Your task to perform on an android device: Clear all items from cart on newegg.com. Image 0: 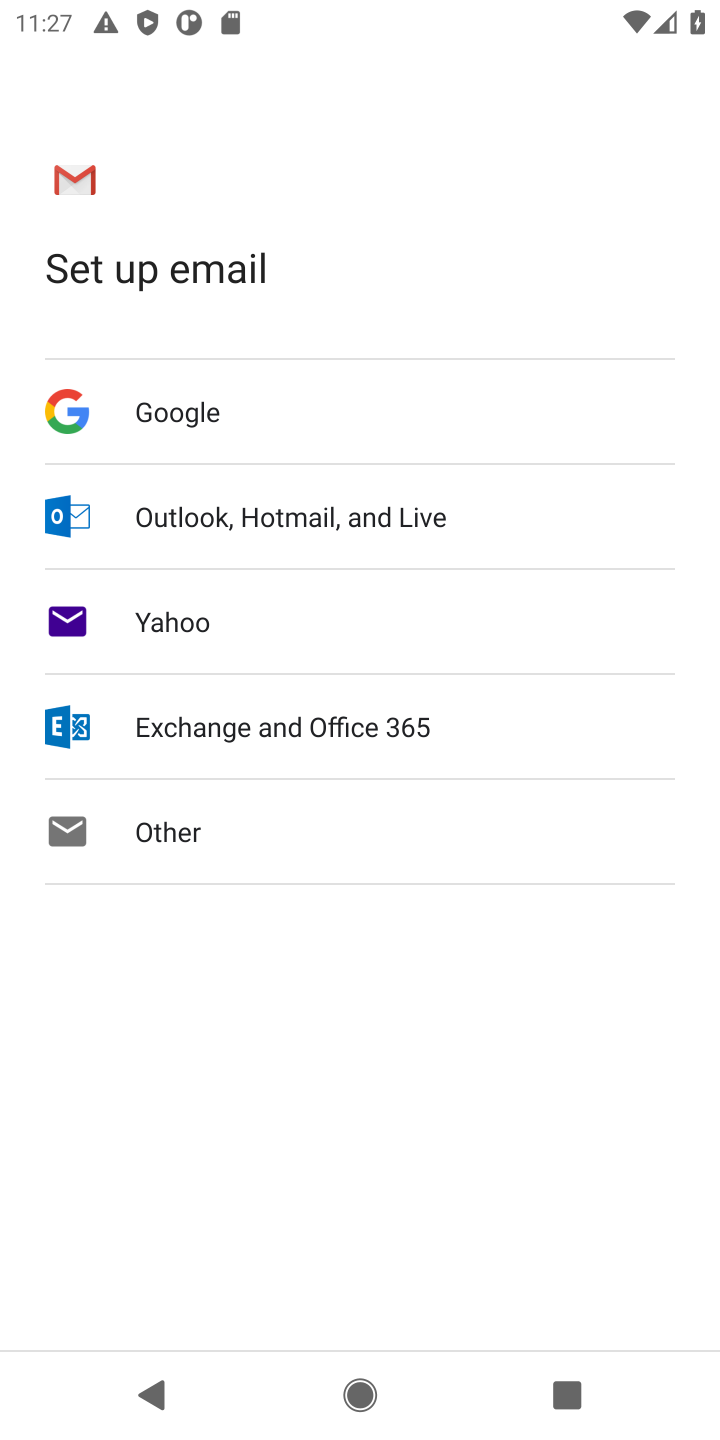
Step 0: press home button
Your task to perform on an android device: Clear all items from cart on newegg.com. Image 1: 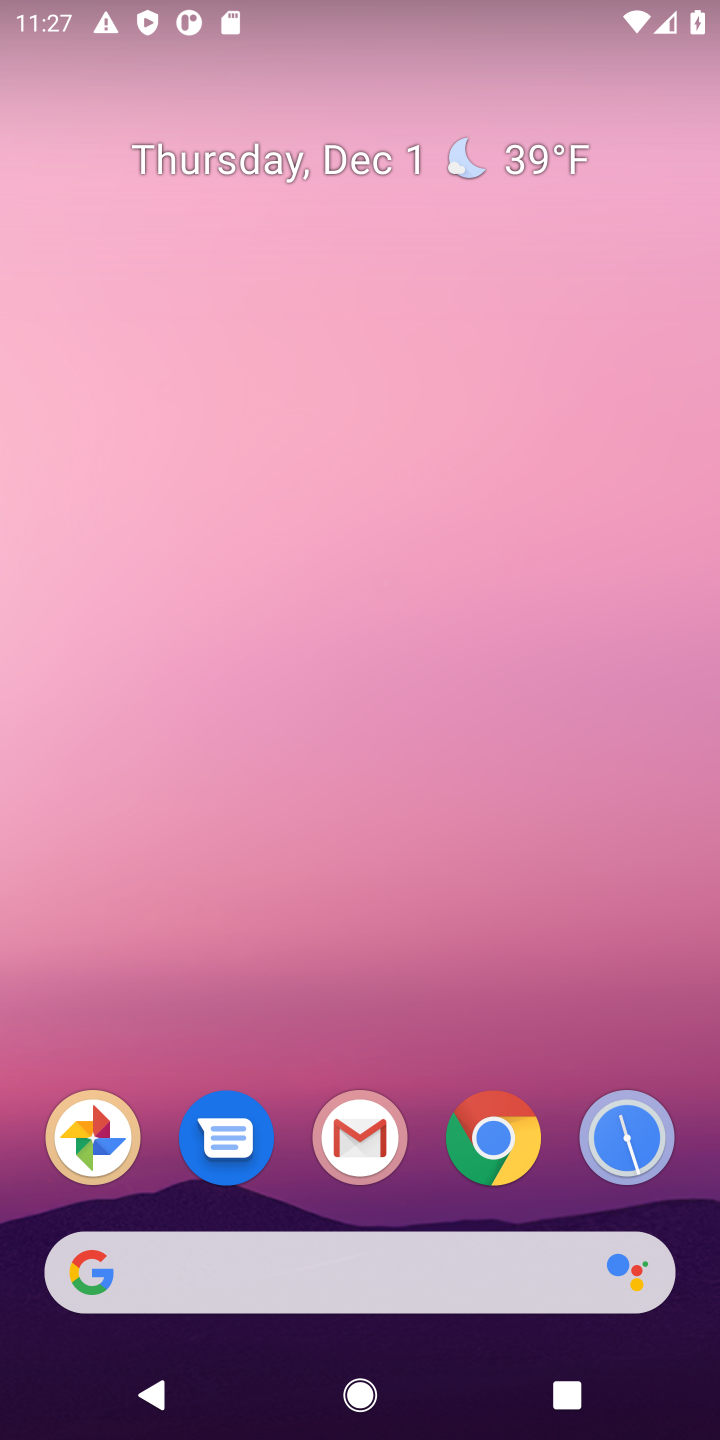
Step 1: drag from (416, 1203) to (373, 685)
Your task to perform on an android device: Clear all items from cart on newegg.com. Image 2: 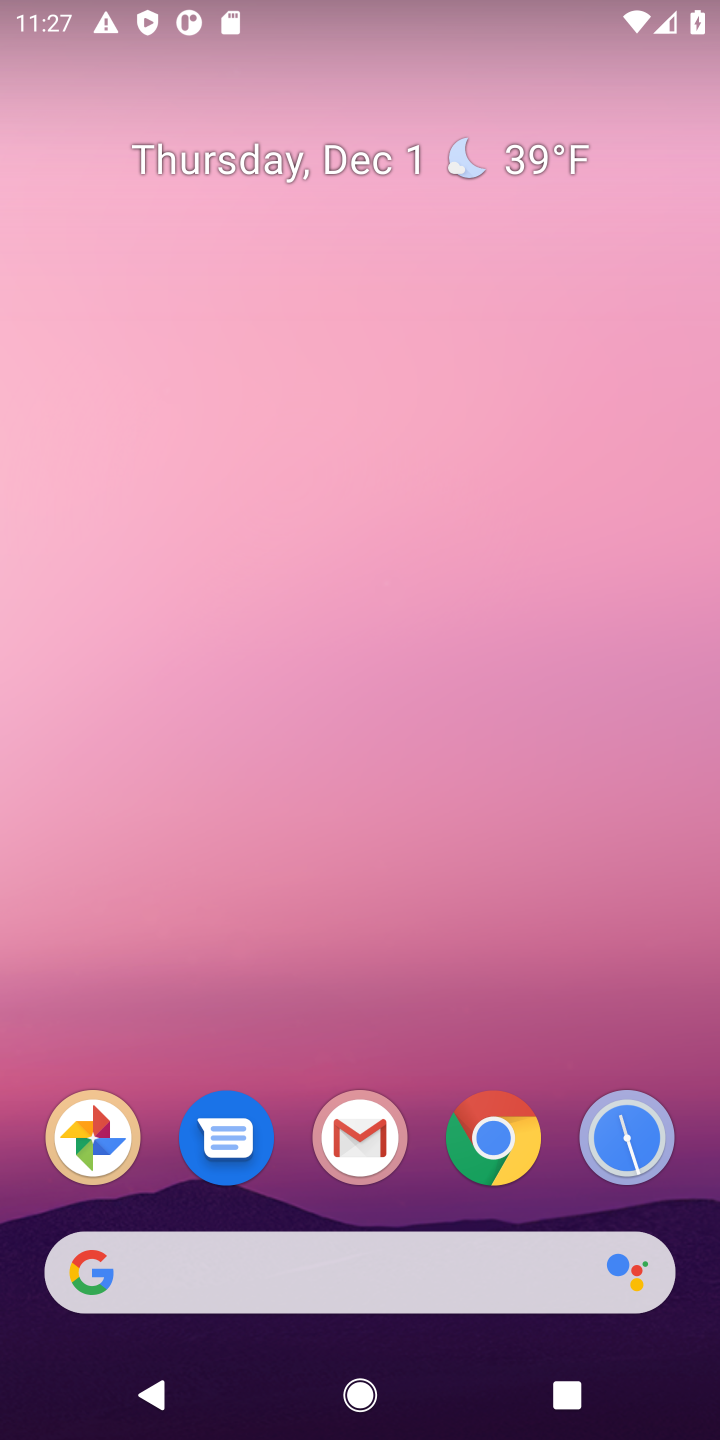
Step 2: drag from (412, 1226) to (597, 20)
Your task to perform on an android device: Clear all items from cart on newegg.com. Image 3: 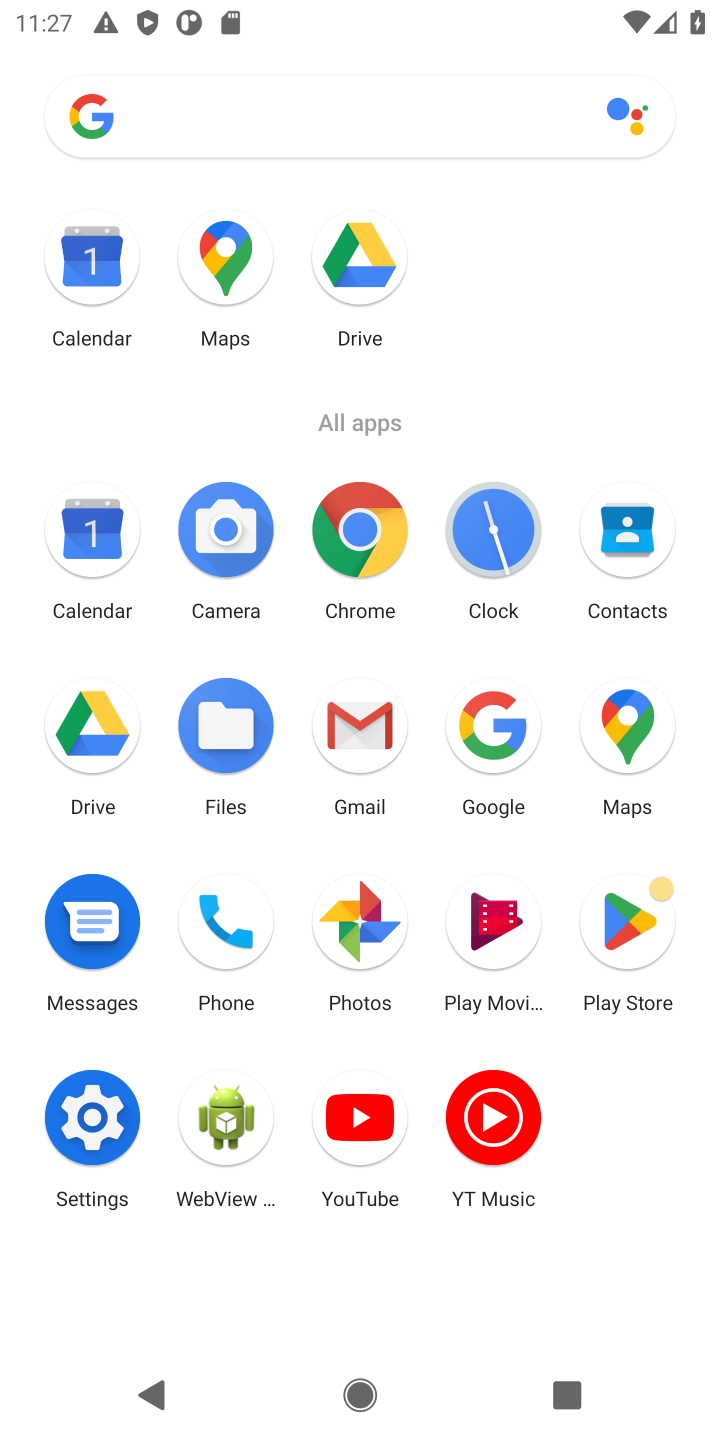
Step 3: click (511, 763)
Your task to perform on an android device: Clear all items from cart on newegg.com. Image 4: 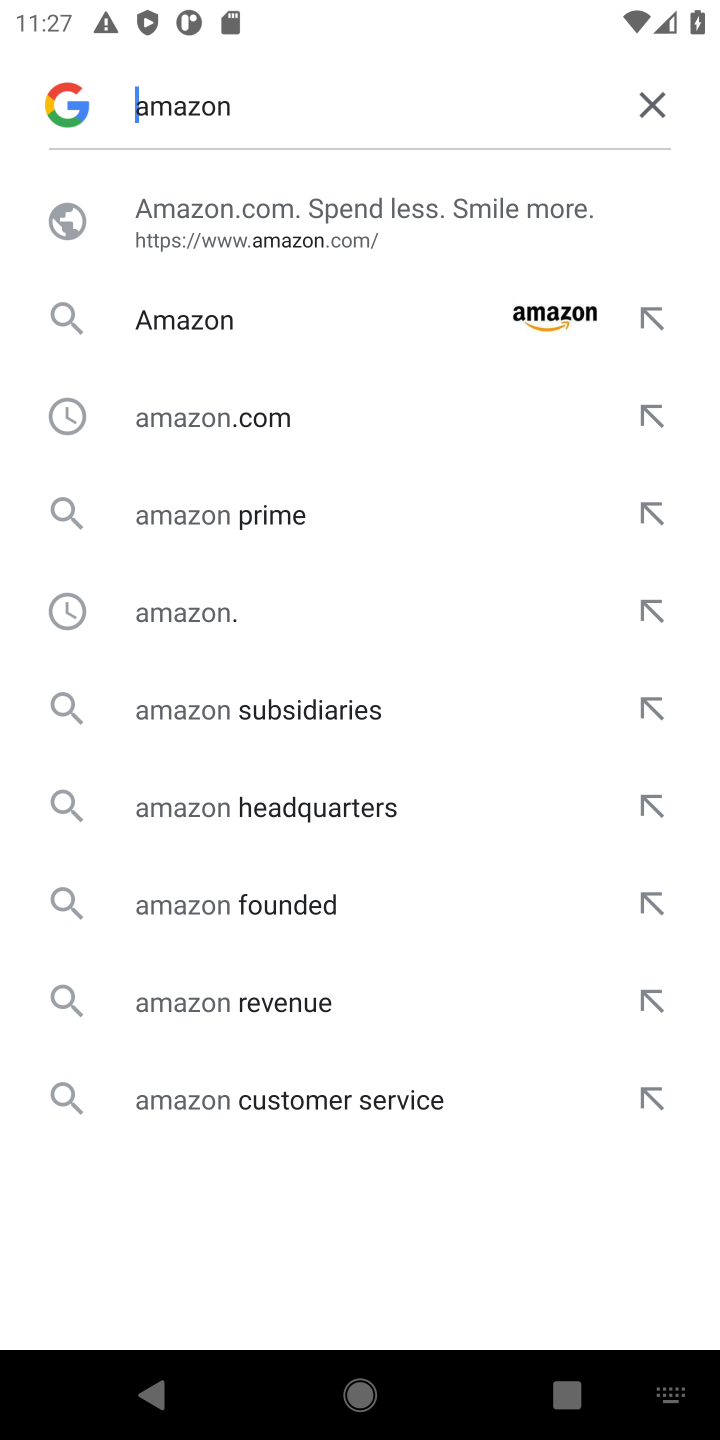
Step 4: click (654, 118)
Your task to perform on an android device: Clear all items from cart on newegg.com. Image 5: 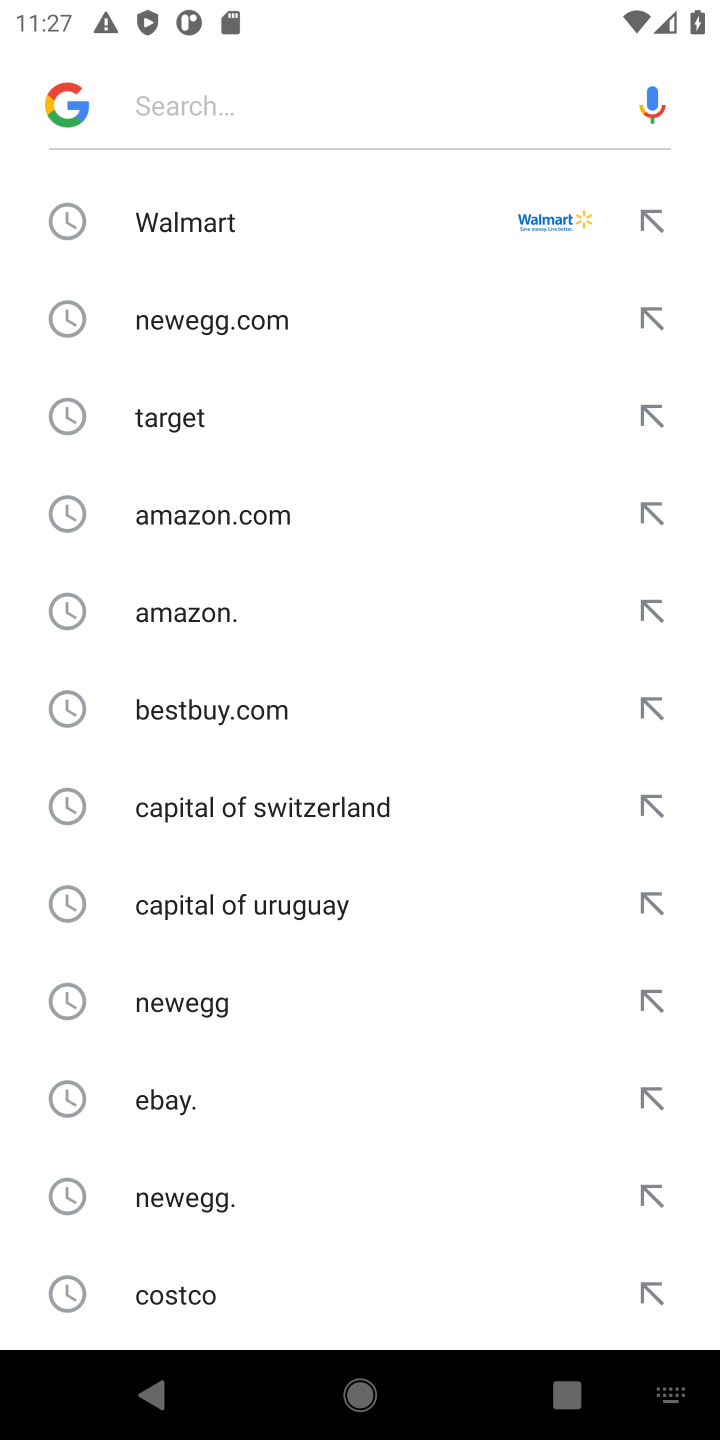
Step 5: type "newegg.com"
Your task to perform on an android device: Clear all items from cart on newegg.com. Image 6: 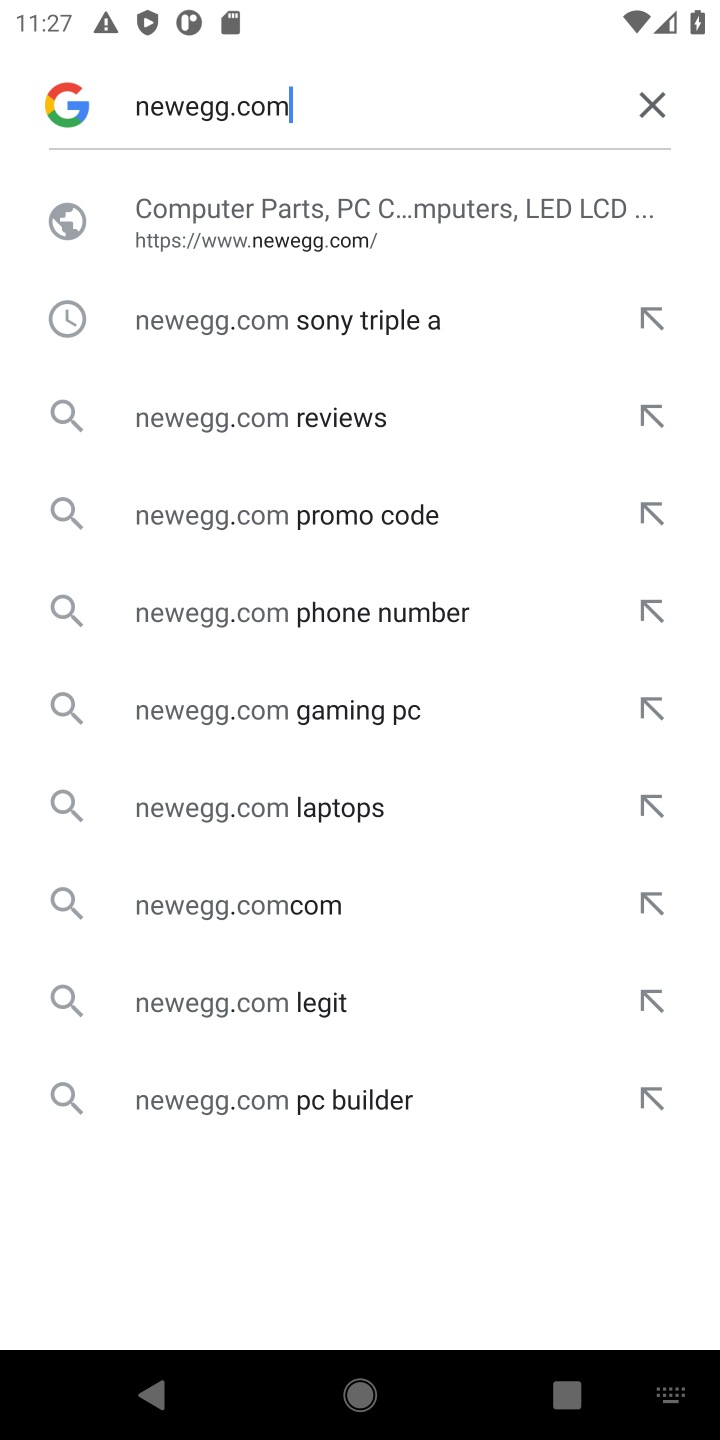
Step 6: click (291, 271)
Your task to perform on an android device: Clear all items from cart on newegg.com. Image 7: 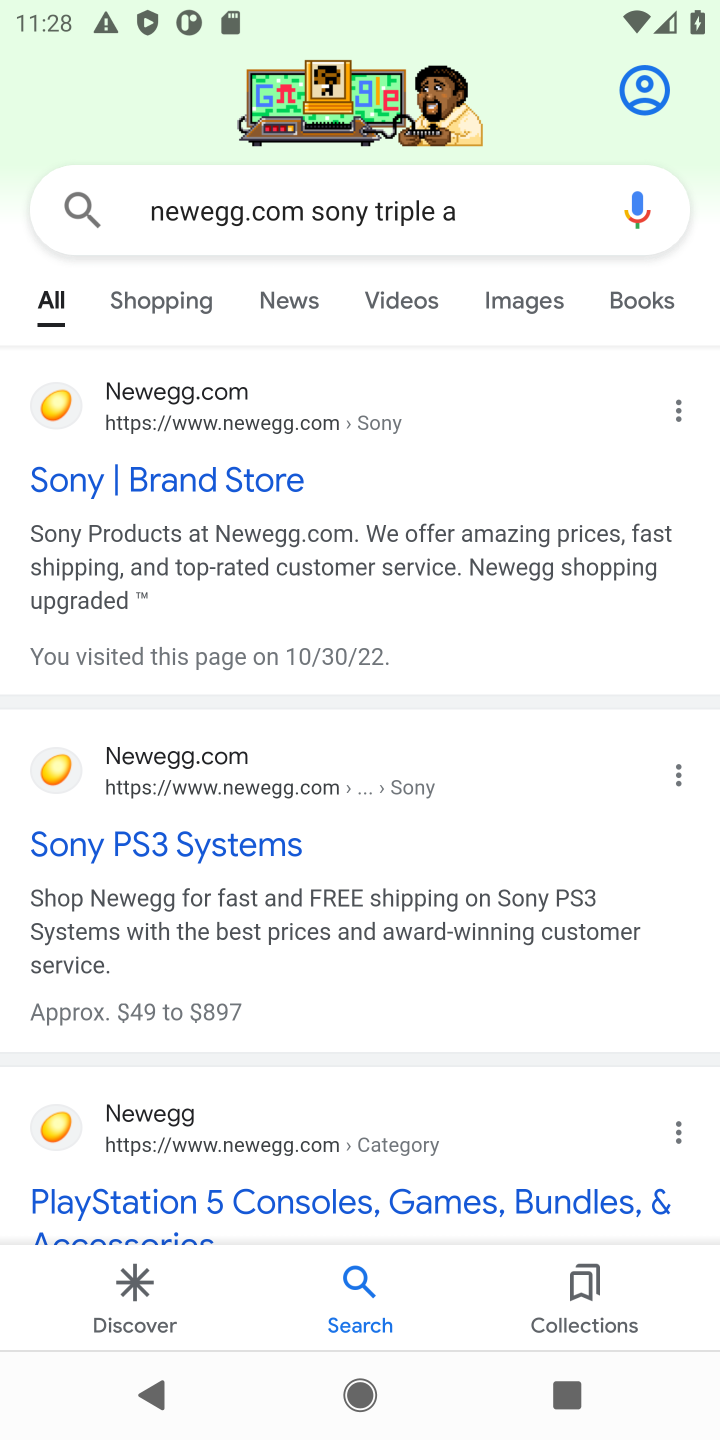
Step 7: click (265, 472)
Your task to perform on an android device: Clear all items from cart on newegg.com. Image 8: 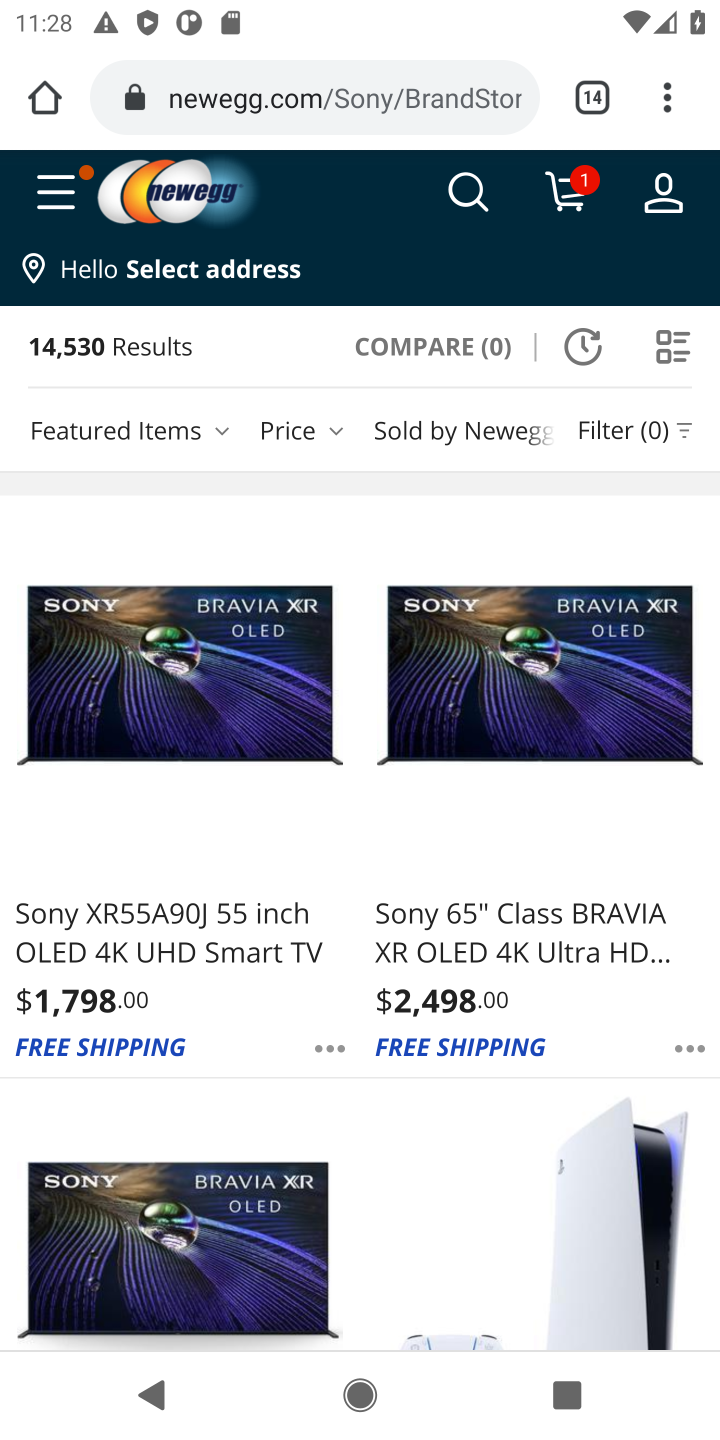
Step 8: click (559, 223)
Your task to perform on an android device: Clear all items from cart on newegg.com. Image 9: 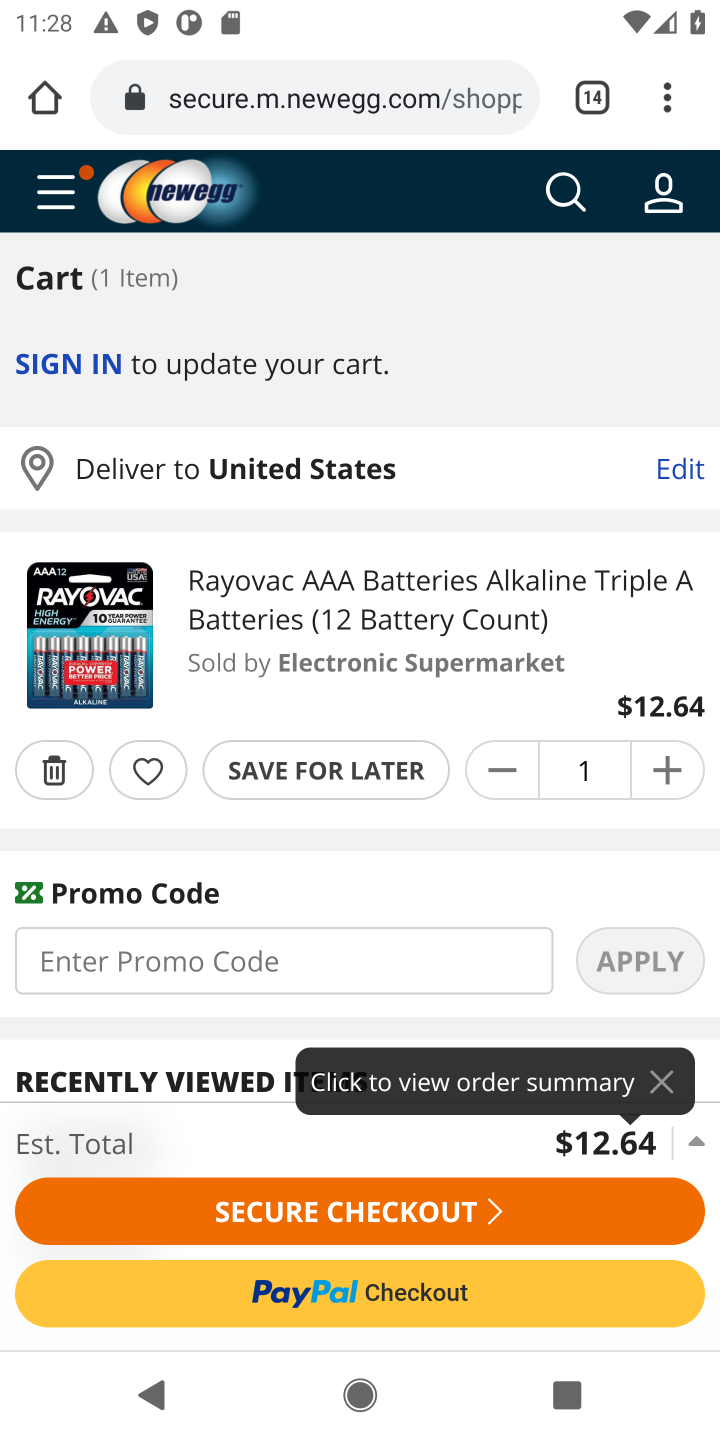
Step 9: drag from (482, 958) to (482, 878)
Your task to perform on an android device: Clear all items from cart on newegg.com. Image 10: 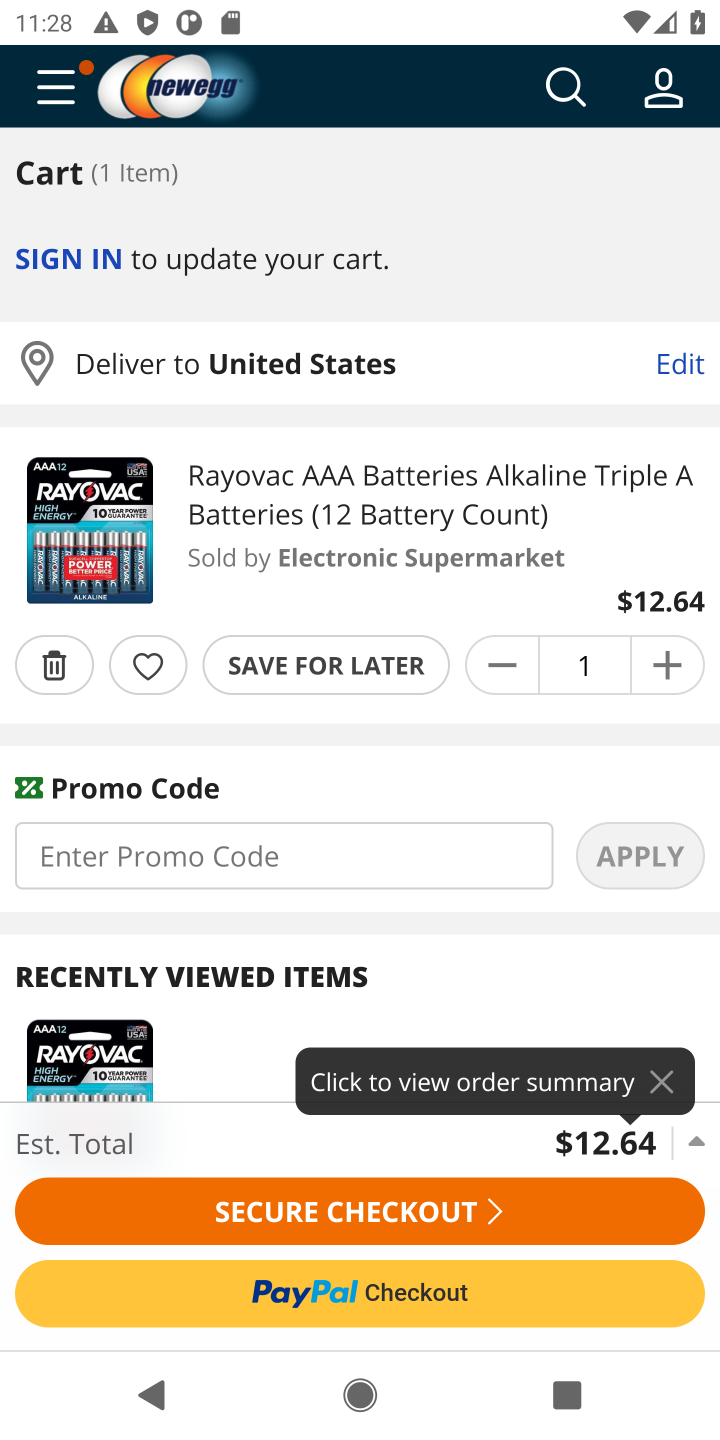
Step 10: click (68, 659)
Your task to perform on an android device: Clear all items from cart on newegg.com. Image 11: 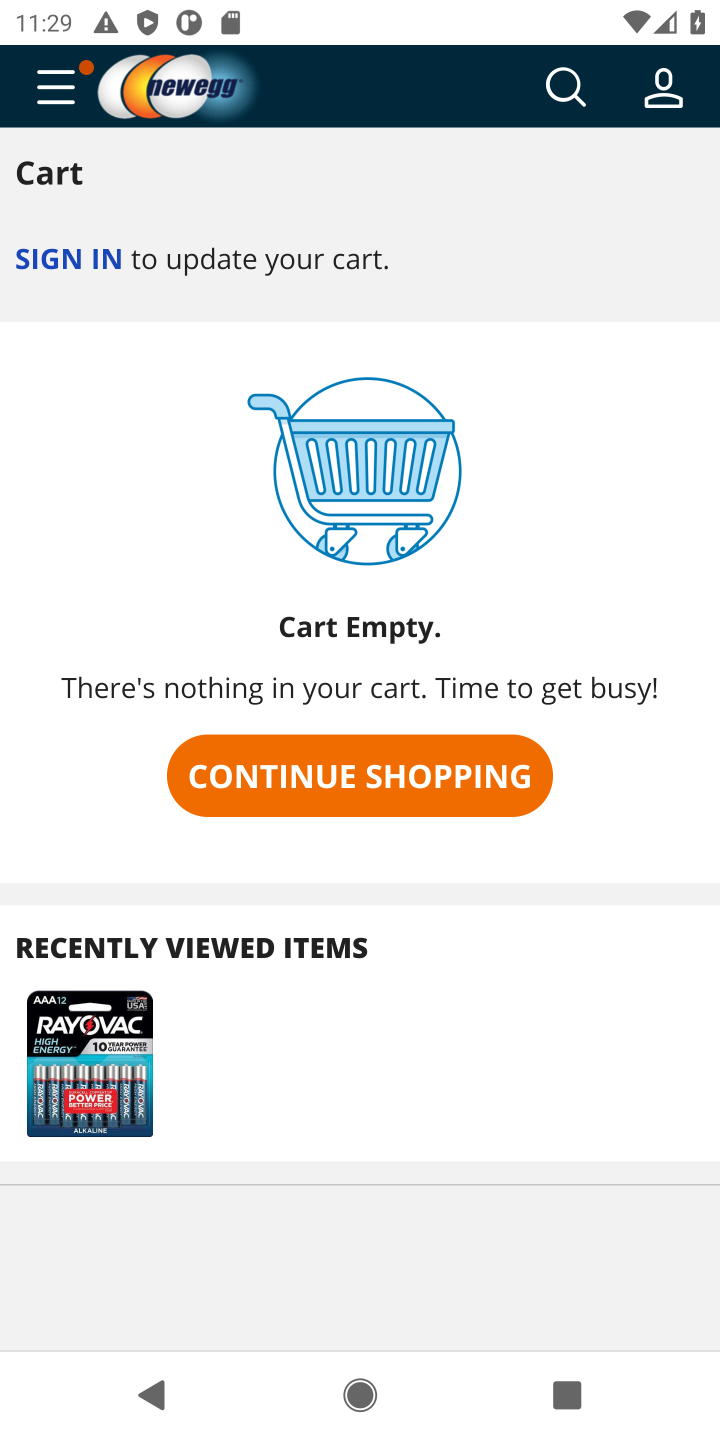
Step 11: task complete